Your task to perform on an android device: toggle show notifications on the lock screen Image 0: 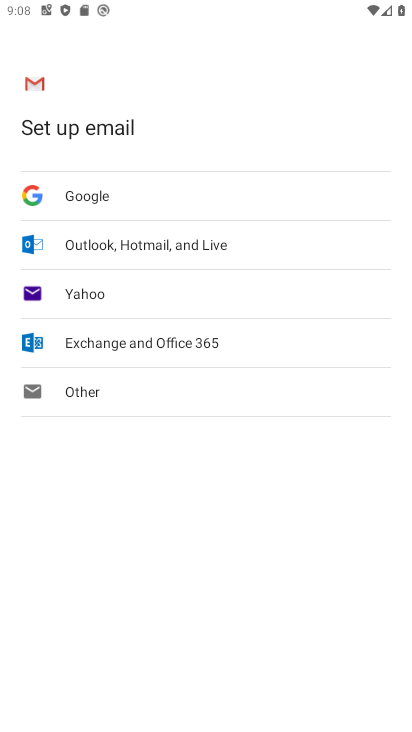
Step 0: press home button
Your task to perform on an android device: toggle show notifications on the lock screen Image 1: 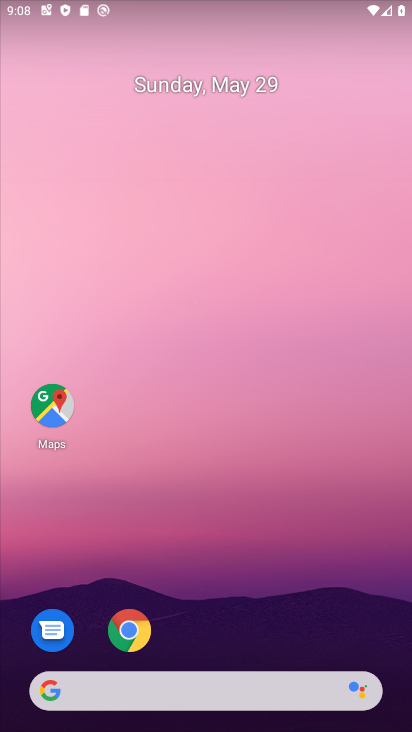
Step 1: drag from (295, 608) to (266, 116)
Your task to perform on an android device: toggle show notifications on the lock screen Image 2: 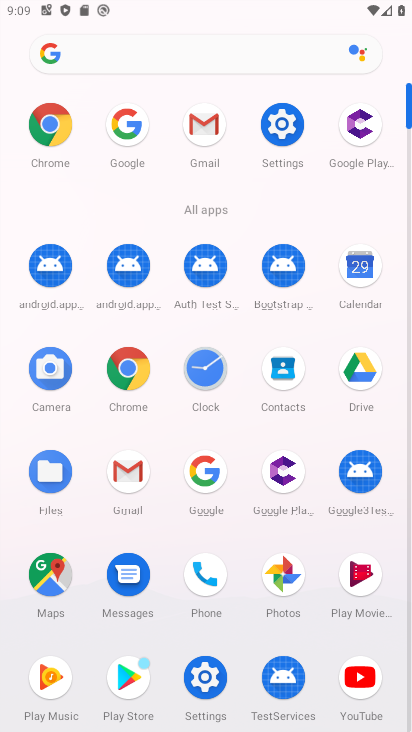
Step 2: click (205, 665)
Your task to perform on an android device: toggle show notifications on the lock screen Image 3: 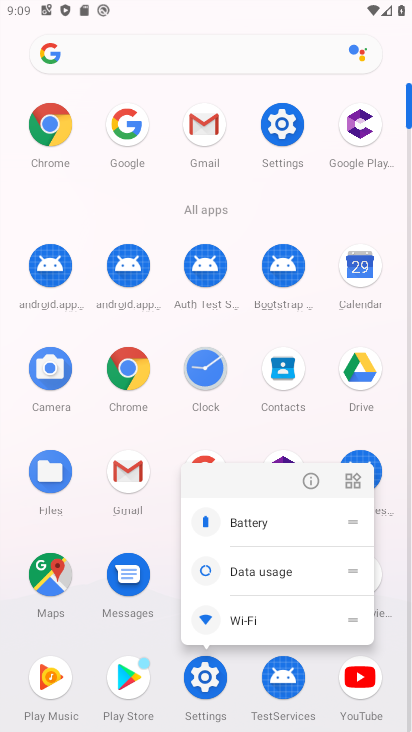
Step 3: click (205, 665)
Your task to perform on an android device: toggle show notifications on the lock screen Image 4: 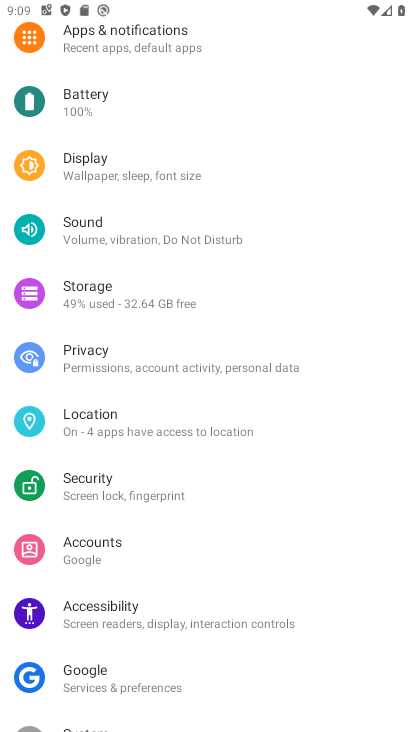
Step 4: click (113, 49)
Your task to perform on an android device: toggle show notifications on the lock screen Image 5: 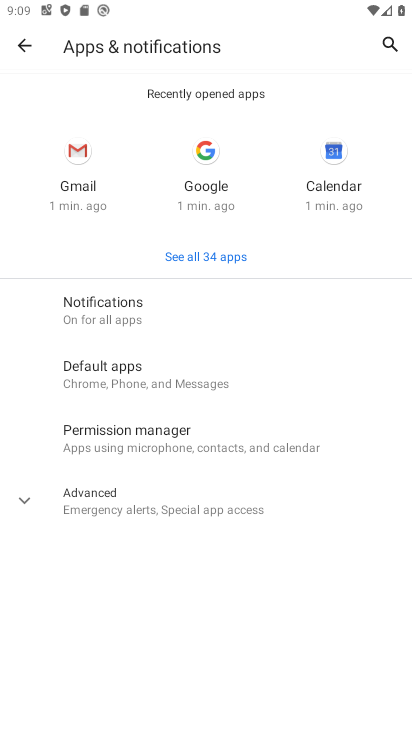
Step 5: click (114, 319)
Your task to perform on an android device: toggle show notifications on the lock screen Image 6: 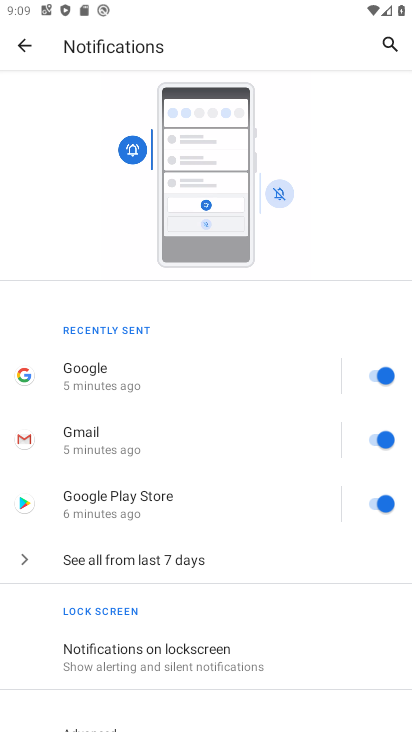
Step 6: click (148, 669)
Your task to perform on an android device: toggle show notifications on the lock screen Image 7: 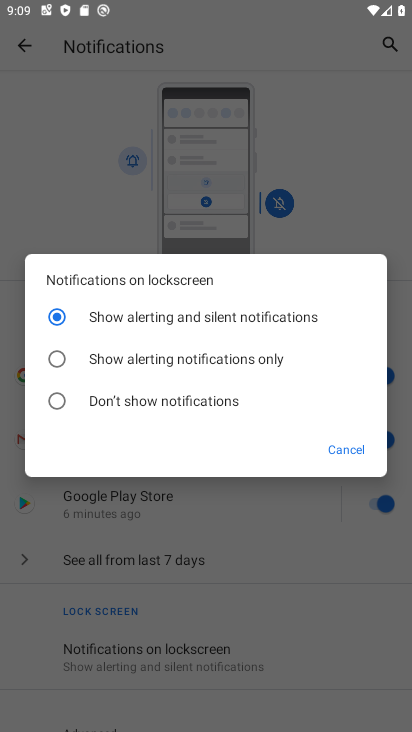
Step 7: task complete